Your task to perform on an android device: see tabs open on other devices in the chrome app Image 0: 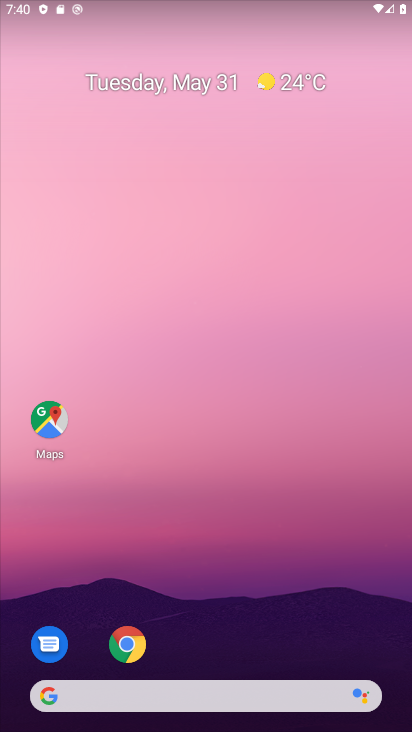
Step 0: drag from (299, 611) to (314, 245)
Your task to perform on an android device: see tabs open on other devices in the chrome app Image 1: 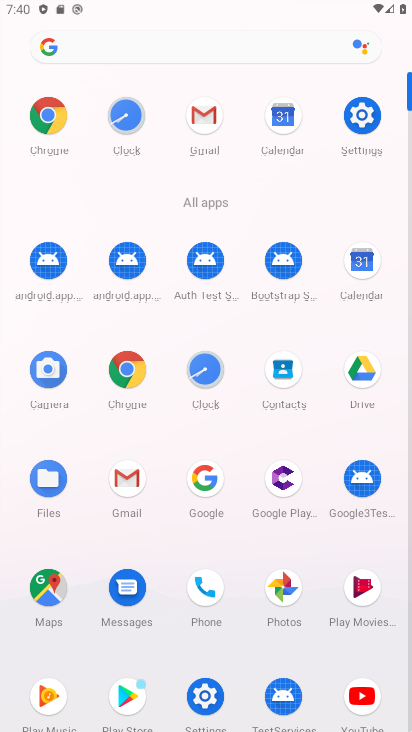
Step 1: click (126, 376)
Your task to perform on an android device: see tabs open on other devices in the chrome app Image 2: 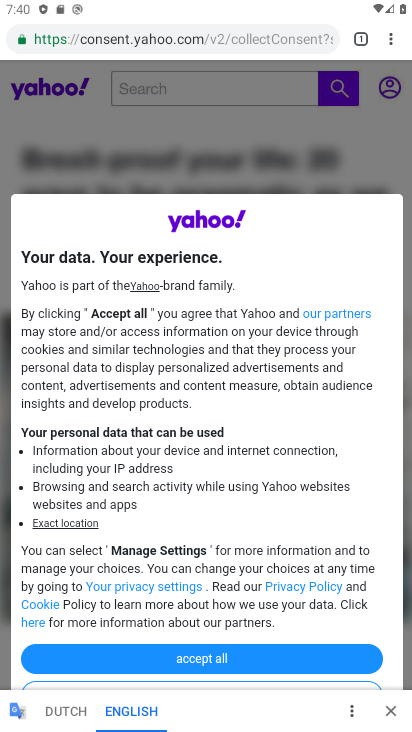
Step 2: click (362, 33)
Your task to perform on an android device: see tabs open on other devices in the chrome app Image 3: 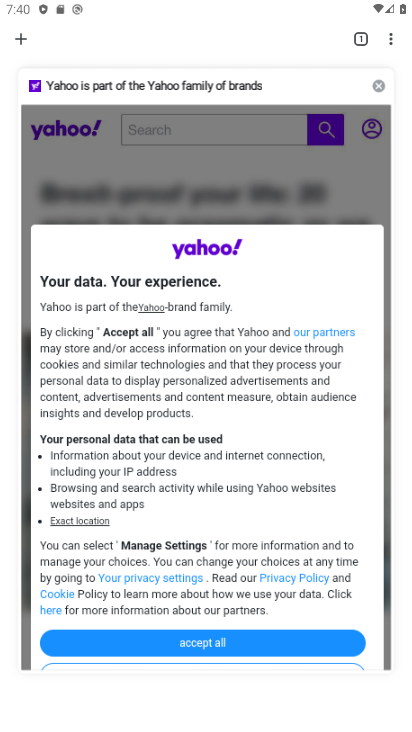
Step 3: click (15, 45)
Your task to perform on an android device: see tabs open on other devices in the chrome app Image 4: 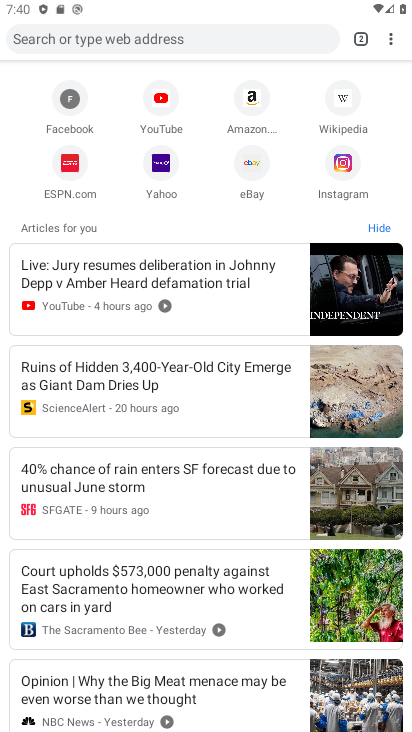
Step 4: click (357, 35)
Your task to perform on an android device: see tabs open on other devices in the chrome app Image 5: 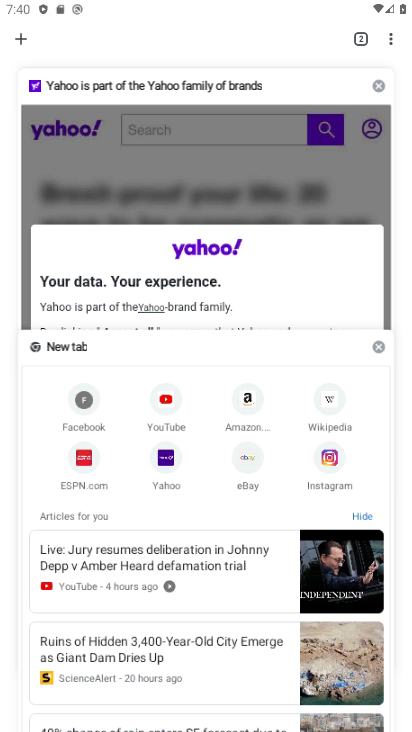
Step 5: task complete